Your task to perform on an android device: check google app version Image 0: 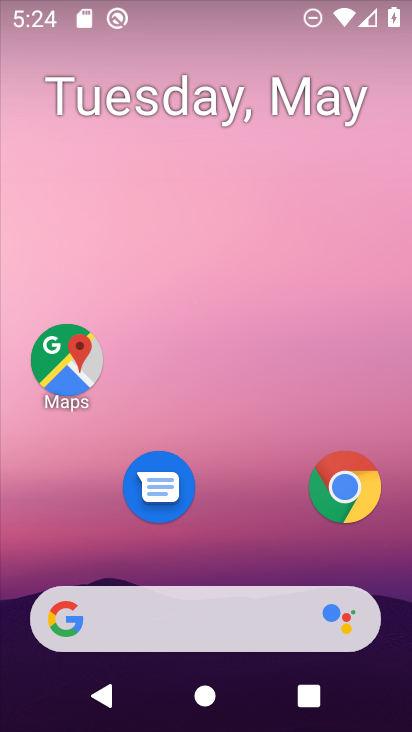
Step 0: click (323, 499)
Your task to perform on an android device: check google app version Image 1: 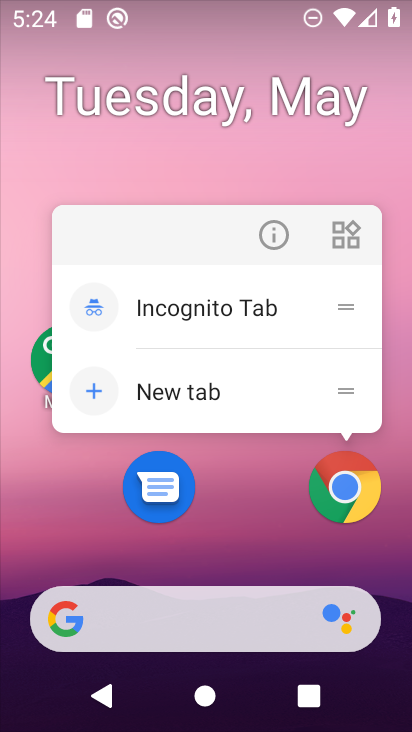
Step 1: click (273, 240)
Your task to perform on an android device: check google app version Image 2: 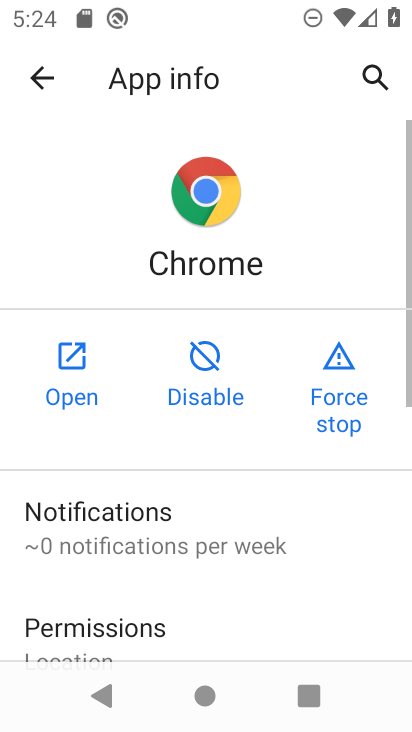
Step 2: drag from (269, 571) to (262, 216)
Your task to perform on an android device: check google app version Image 3: 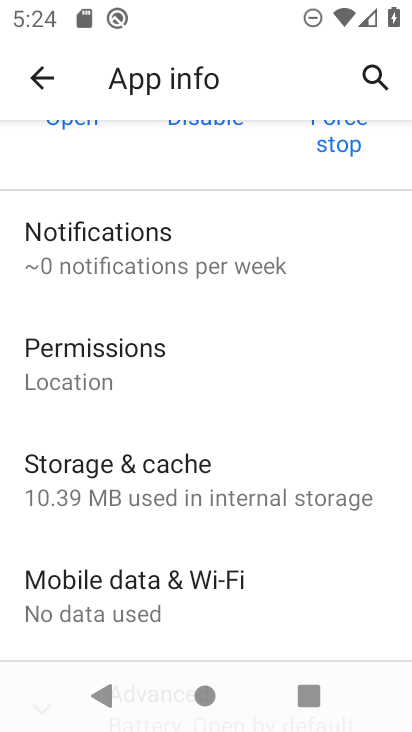
Step 3: drag from (245, 647) to (236, 24)
Your task to perform on an android device: check google app version Image 4: 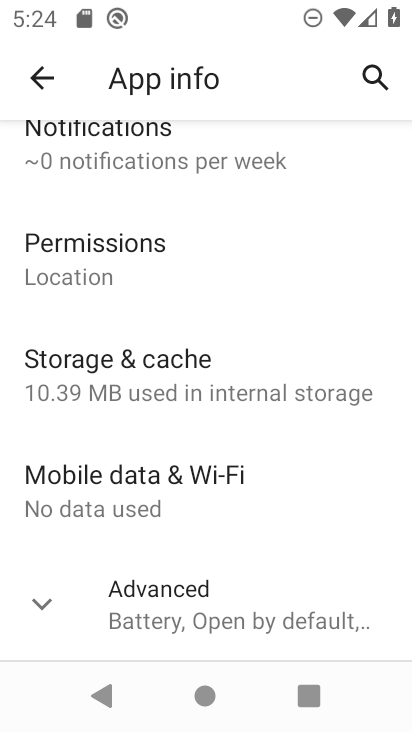
Step 4: drag from (270, 570) to (258, 415)
Your task to perform on an android device: check google app version Image 5: 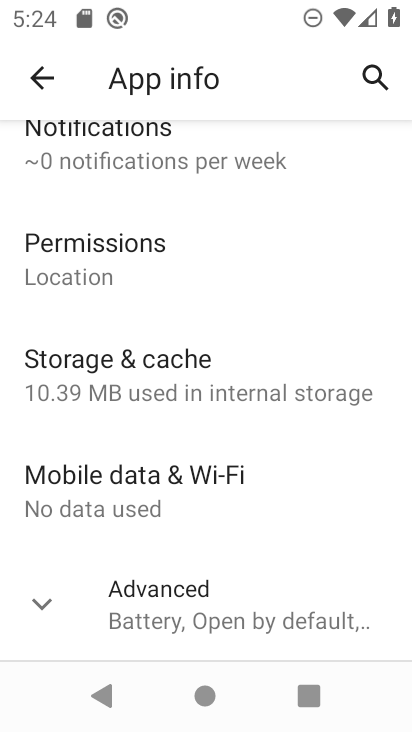
Step 5: click (261, 635)
Your task to perform on an android device: check google app version Image 6: 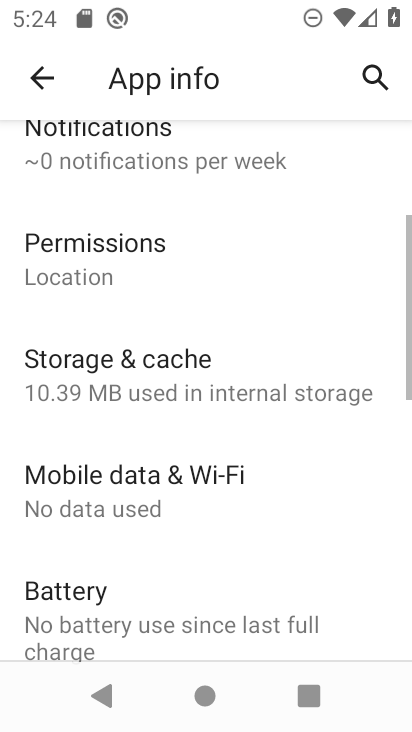
Step 6: drag from (261, 635) to (220, 74)
Your task to perform on an android device: check google app version Image 7: 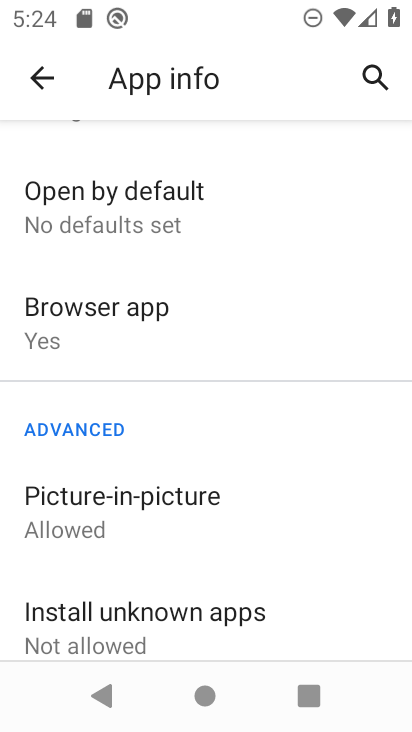
Step 7: drag from (257, 562) to (226, 249)
Your task to perform on an android device: check google app version Image 8: 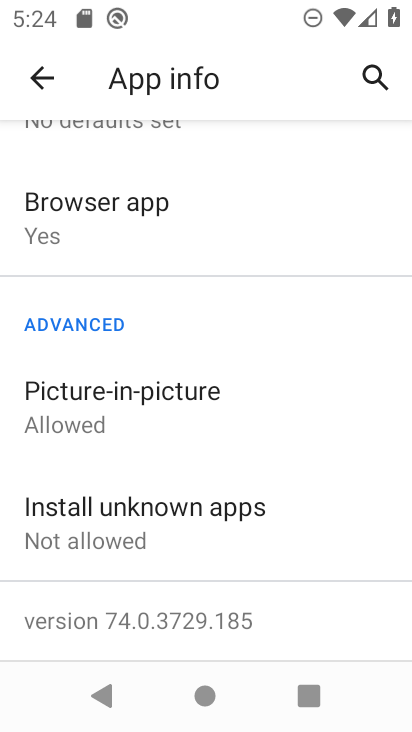
Step 8: click (269, 638)
Your task to perform on an android device: check google app version Image 9: 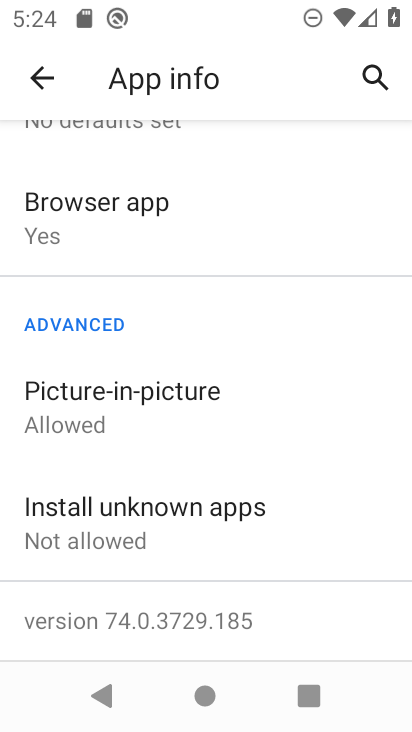
Step 9: task complete